Your task to perform on an android device: Go to Android settings Image 0: 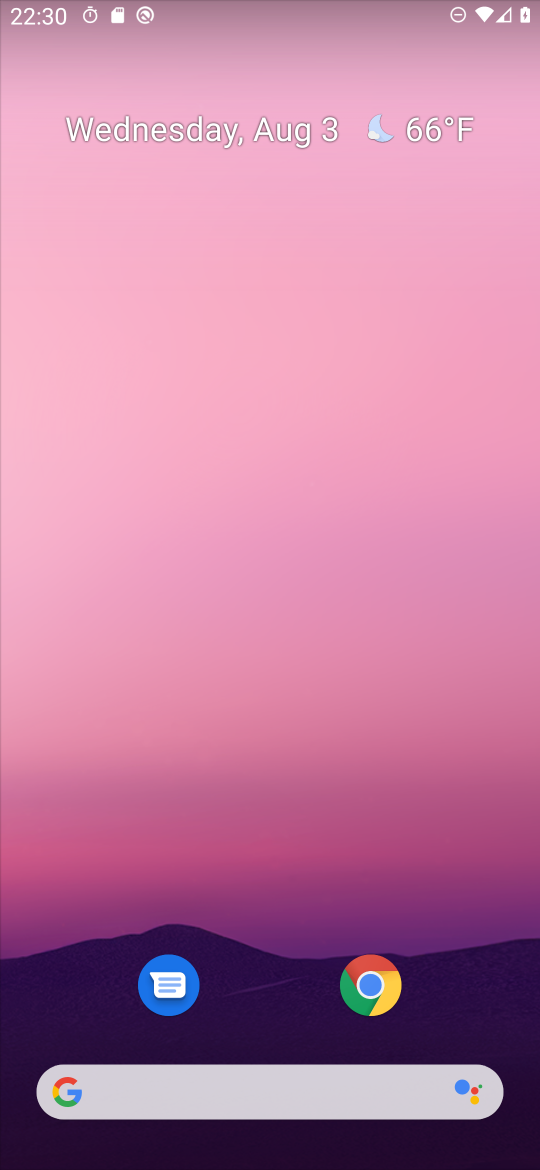
Step 0: drag from (248, 967) to (284, 360)
Your task to perform on an android device: Go to Android settings Image 1: 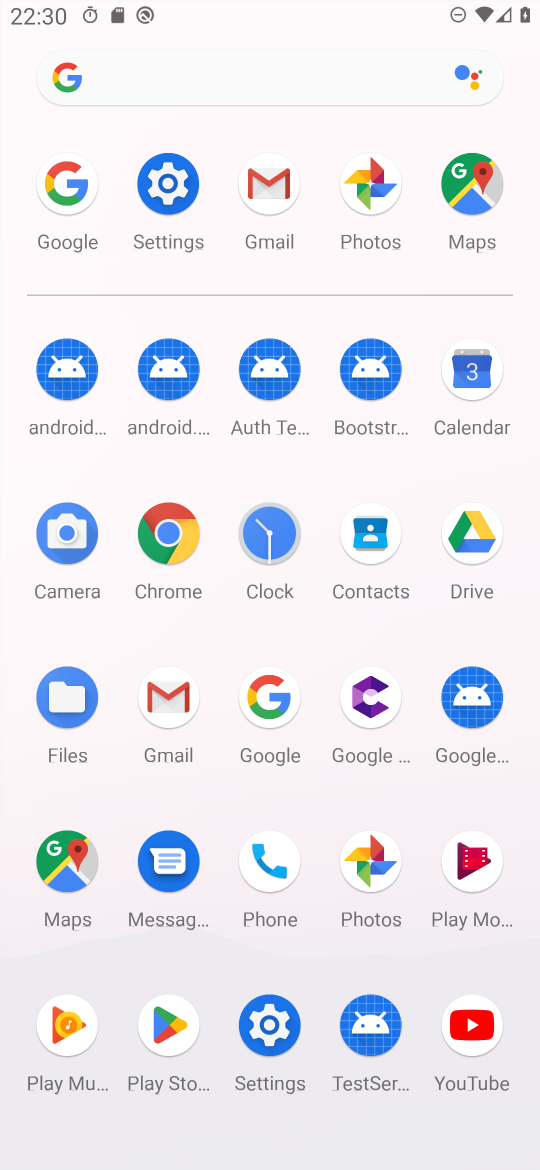
Step 1: click (181, 167)
Your task to perform on an android device: Go to Android settings Image 2: 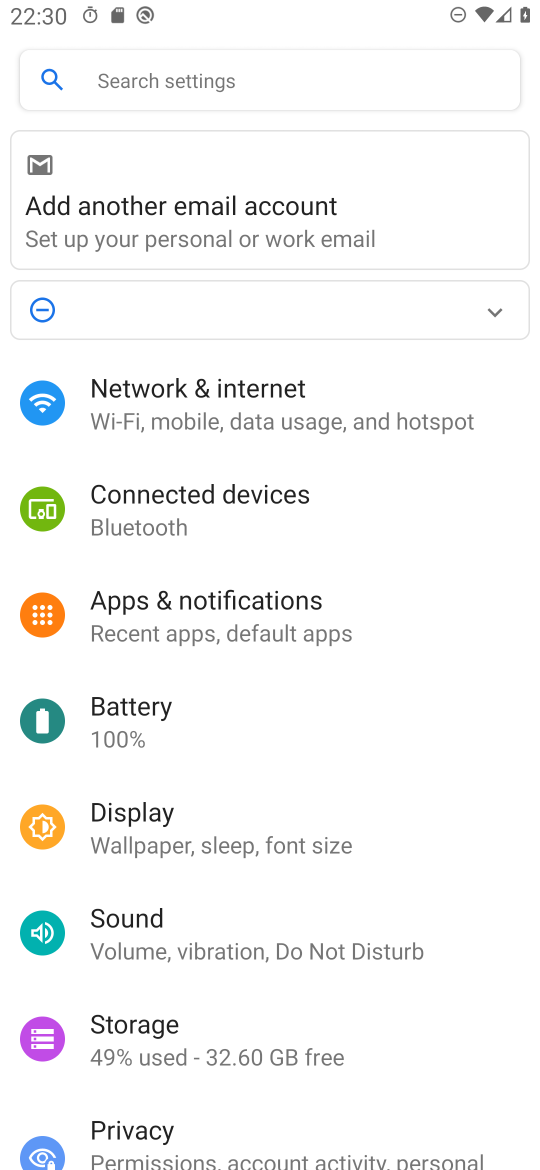
Step 2: task complete